Your task to perform on an android device: Open the web browser Image 0: 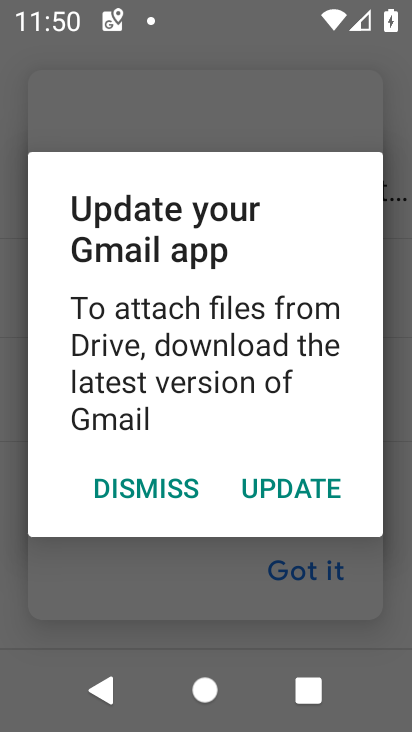
Step 0: press home button
Your task to perform on an android device: Open the web browser Image 1: 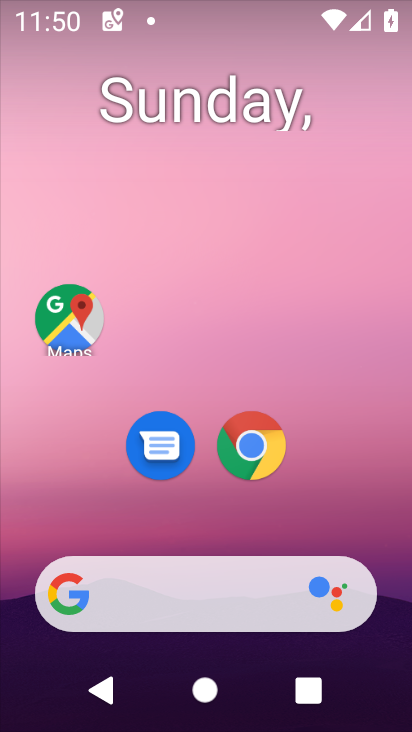
Step 1: click (272, 454)
Your task to perform on an android device: Open the web browser Image 2: 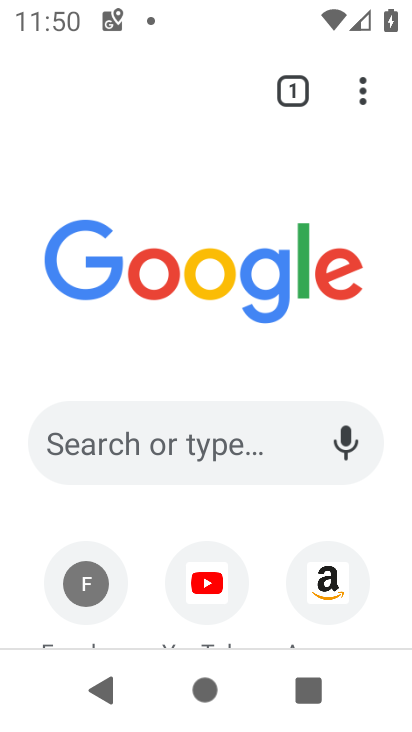
Step 2: task complete